Your task to perform on an android device: snooze an email in the gmail app Image 0: 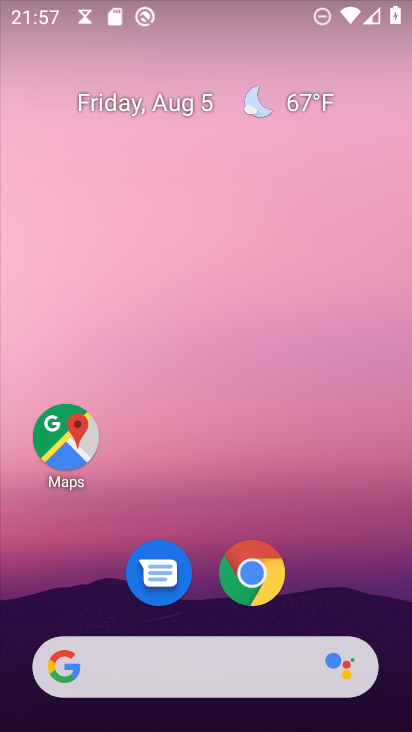
Step 0: drag from (167, 686) to (199, 176)
Your task to perform on an android device: snooze an email in the gmail app Image 1: 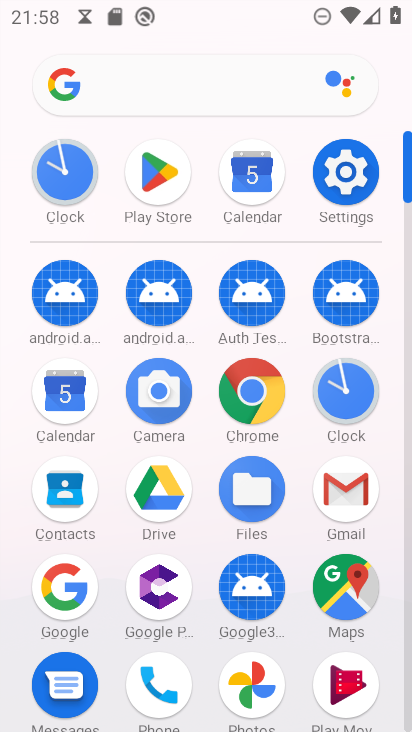
Step 1: click (350, 478)
Your task to perform on an android device: snooze an email in the gmail app Image 2: 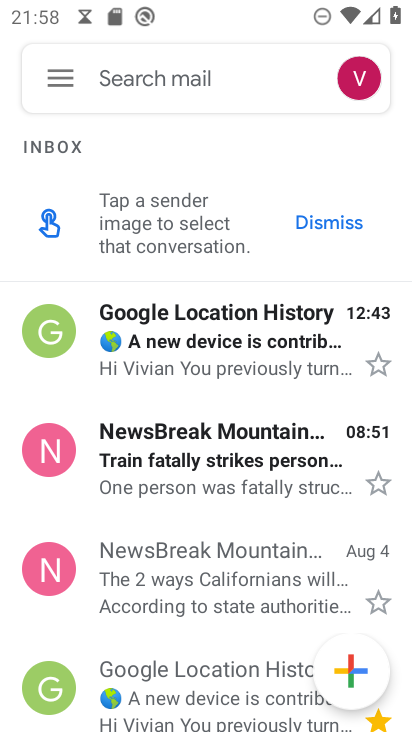
Step 2: click (263, 361)
Your task to perform on an android device: snooze an email in the gmail app Image 3: 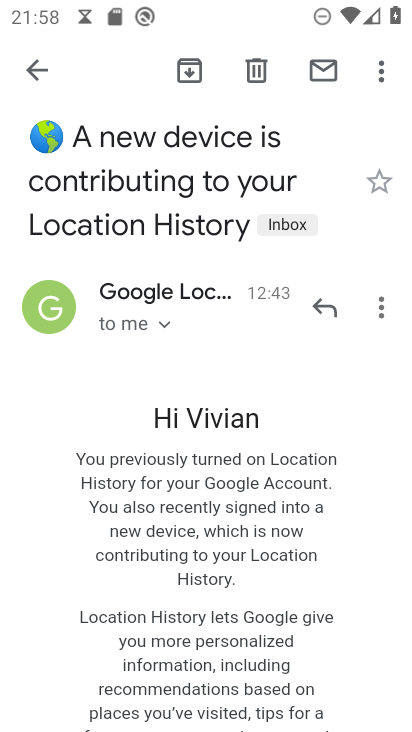
Step 3: click (380, 67)
Your task to perform on an android device: snooze an email in the gmail app Image 4: 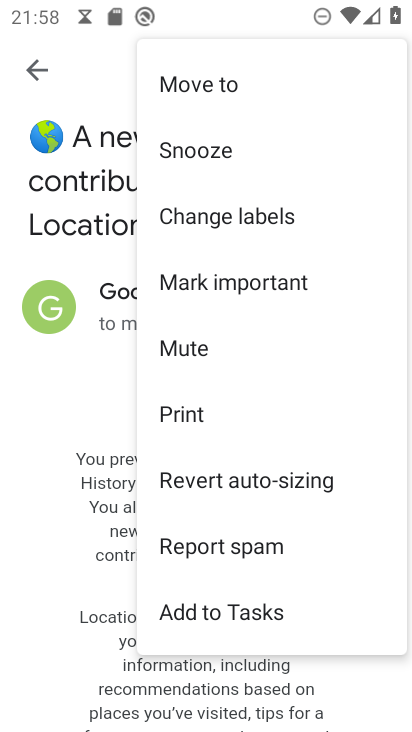
Step 4: click (207, 150)
Your task to perform on an android device: snooze an email in the gmail app Image 5: 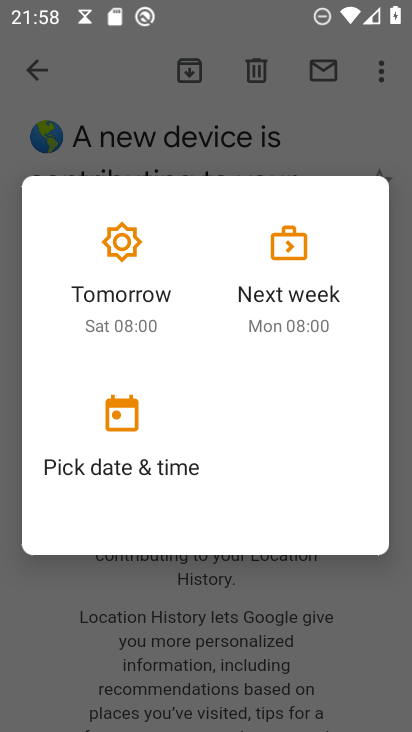
Step 5: click (122, 248)
Your task to perform on an android device: snooze an email in the gmail app Image 6: 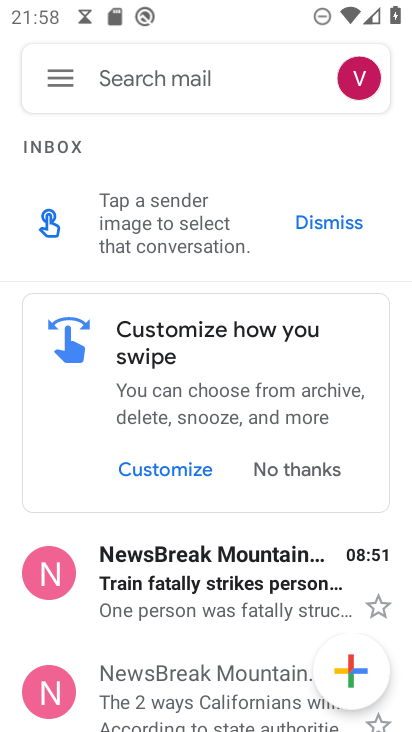
Step 6: task complete